Your task to perform on an android device: check google app version Image 0: 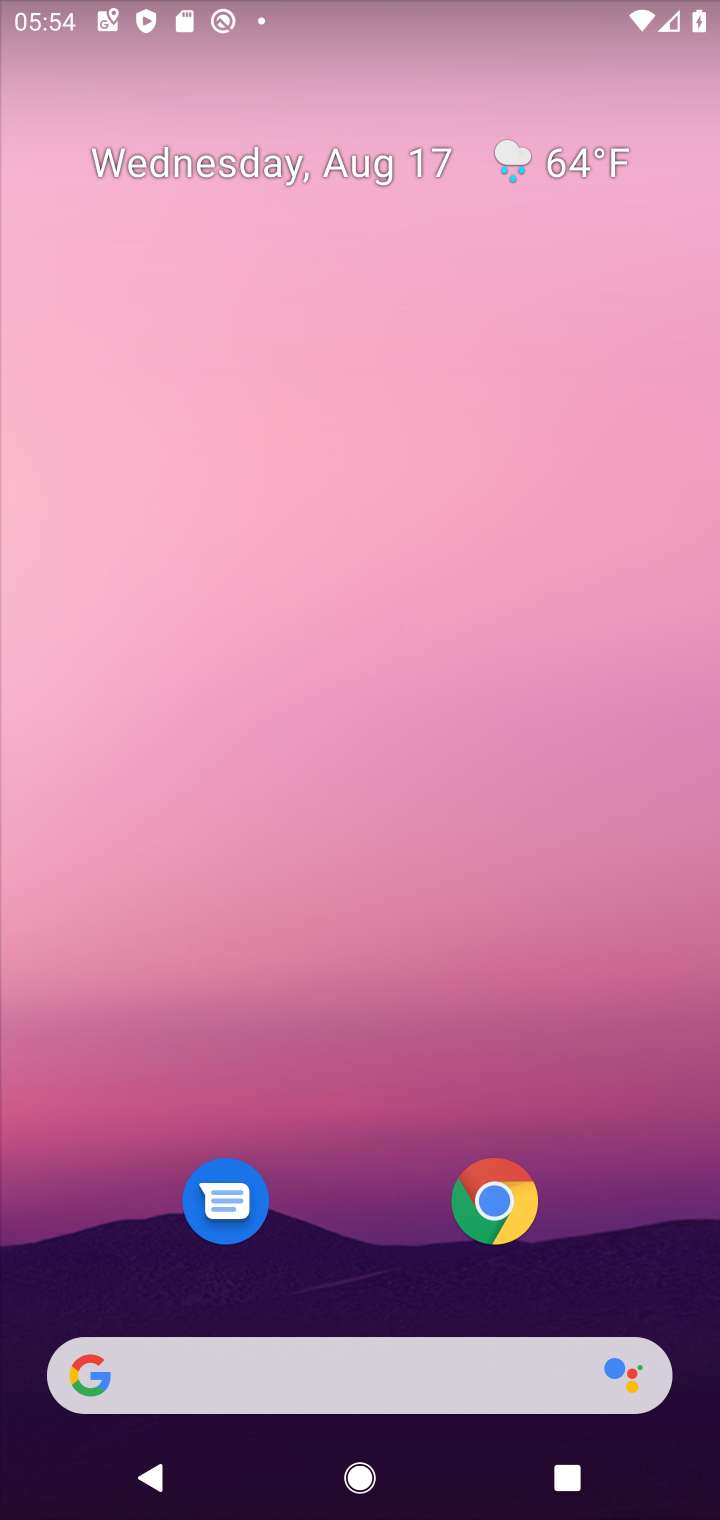
Step 0: press home button
Your task to perform on an android device: check google app version Image 1: 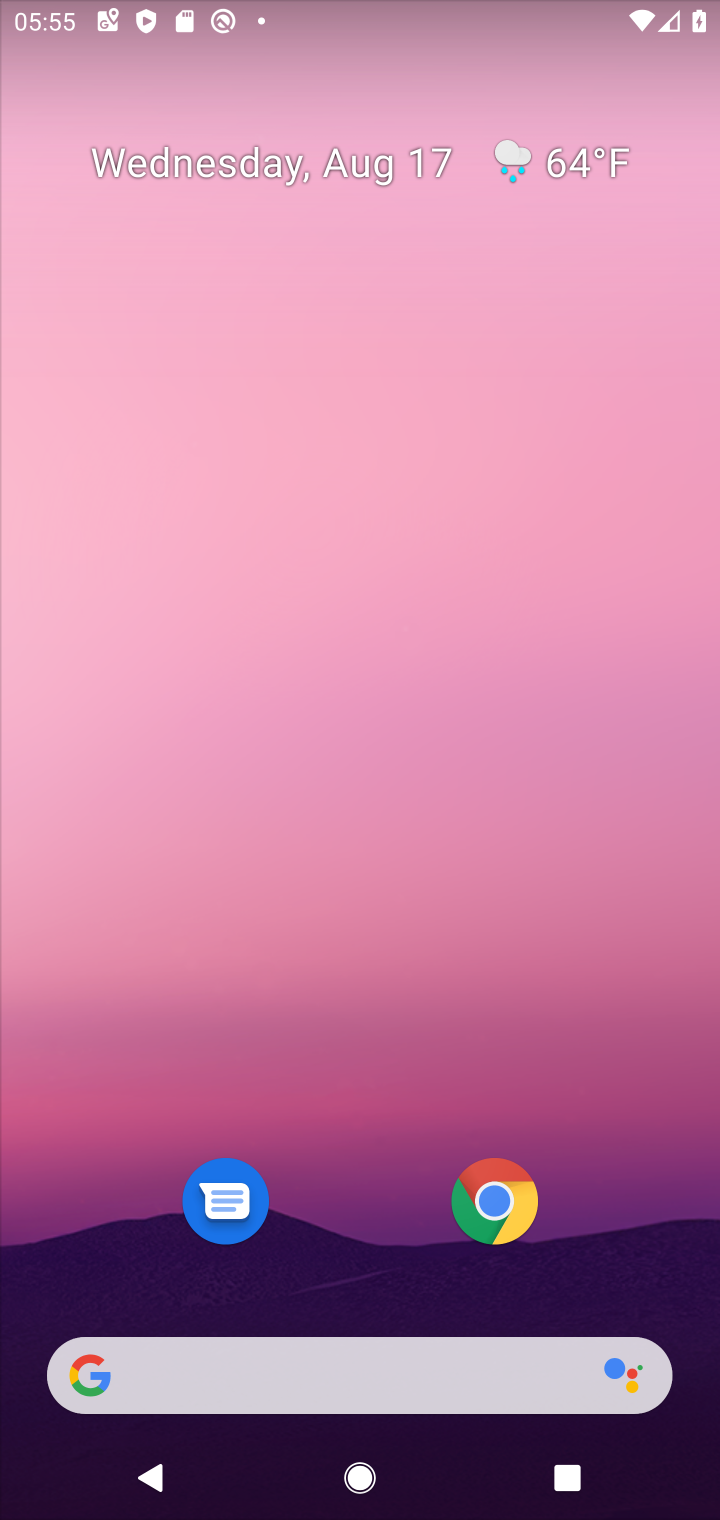
Step 1: drag from (224, 2) to (366, 5)
Your task to perform on an android device: check google app version Image 2: 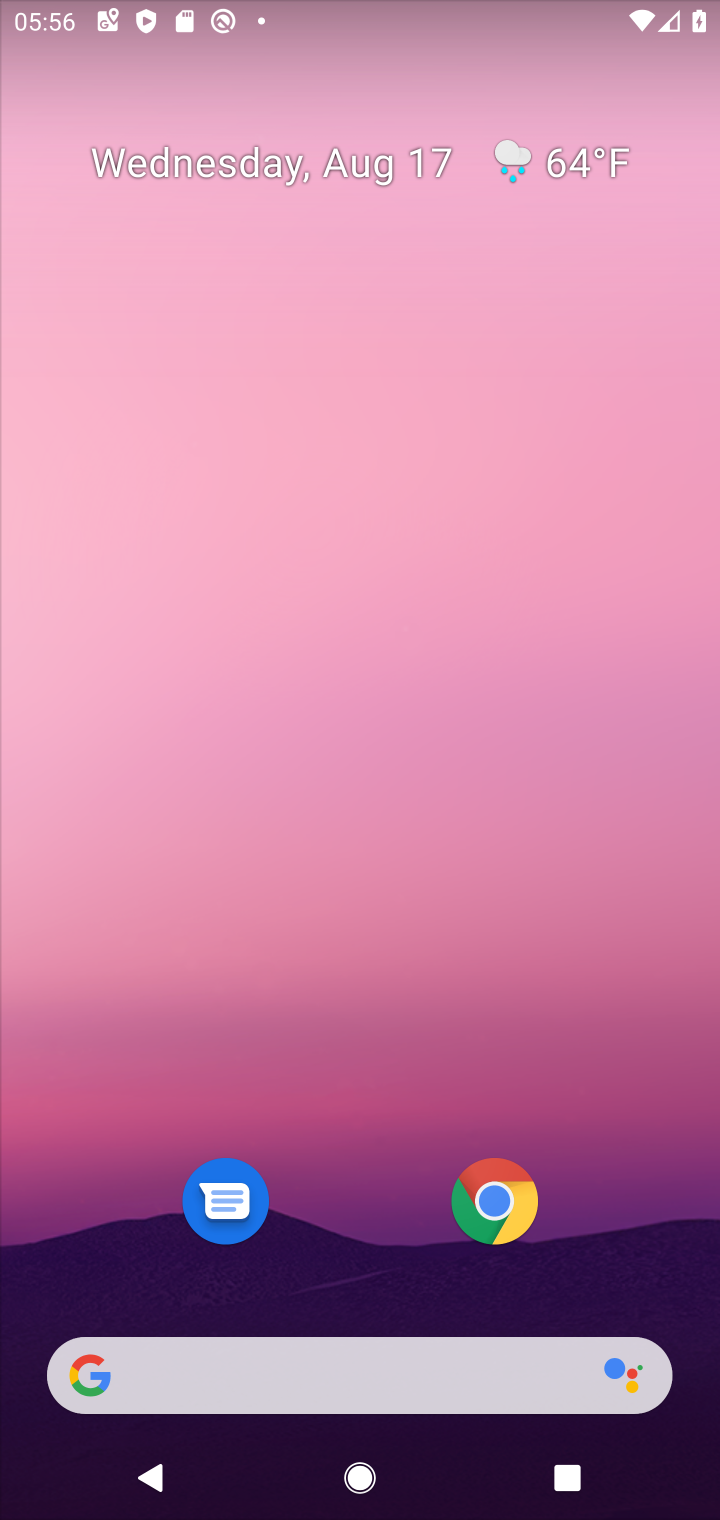
Step 2: drag from (343, 1261) to (462, 90)
Your task to perform on an android device: check google app version Image 3: 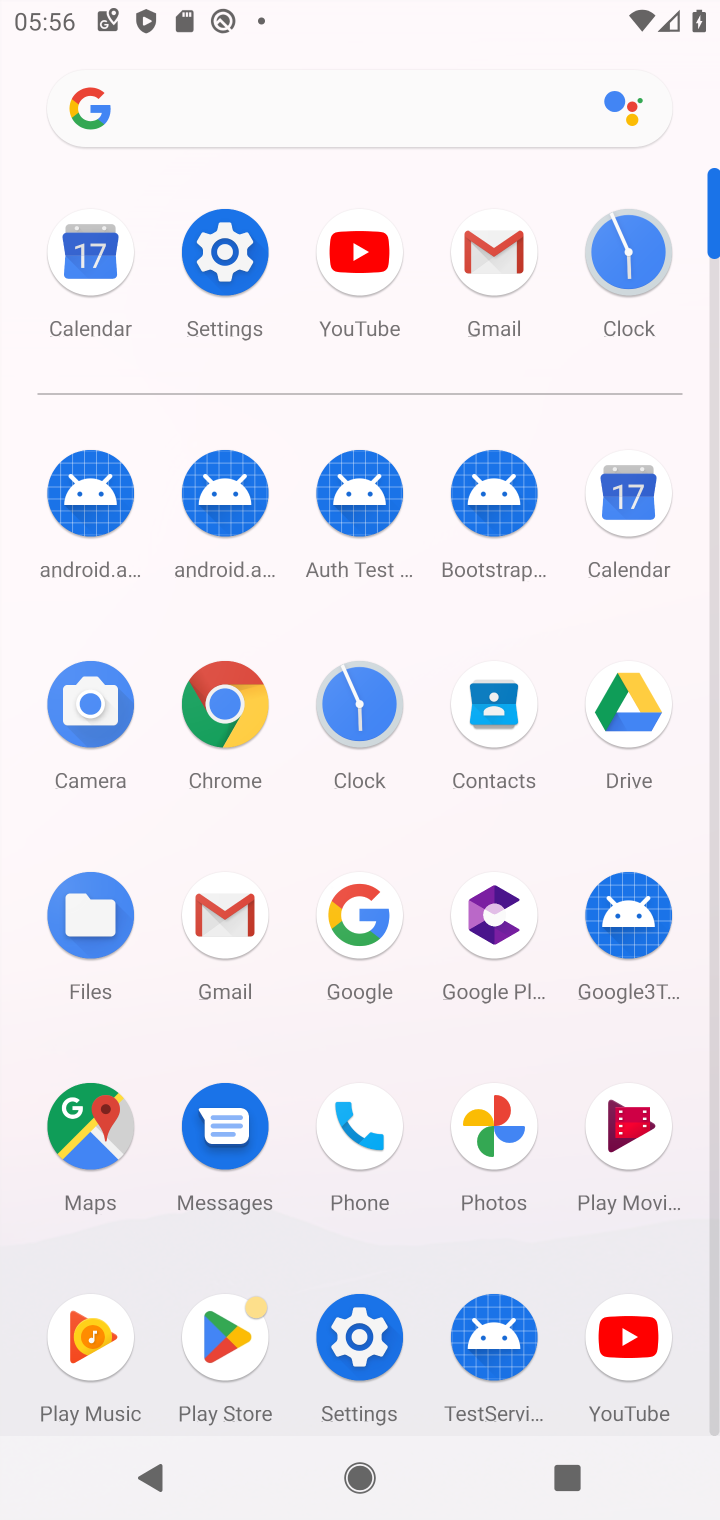
Step 3: click (353, 943)
Your task to perform on an android device: check google app version Image 4: 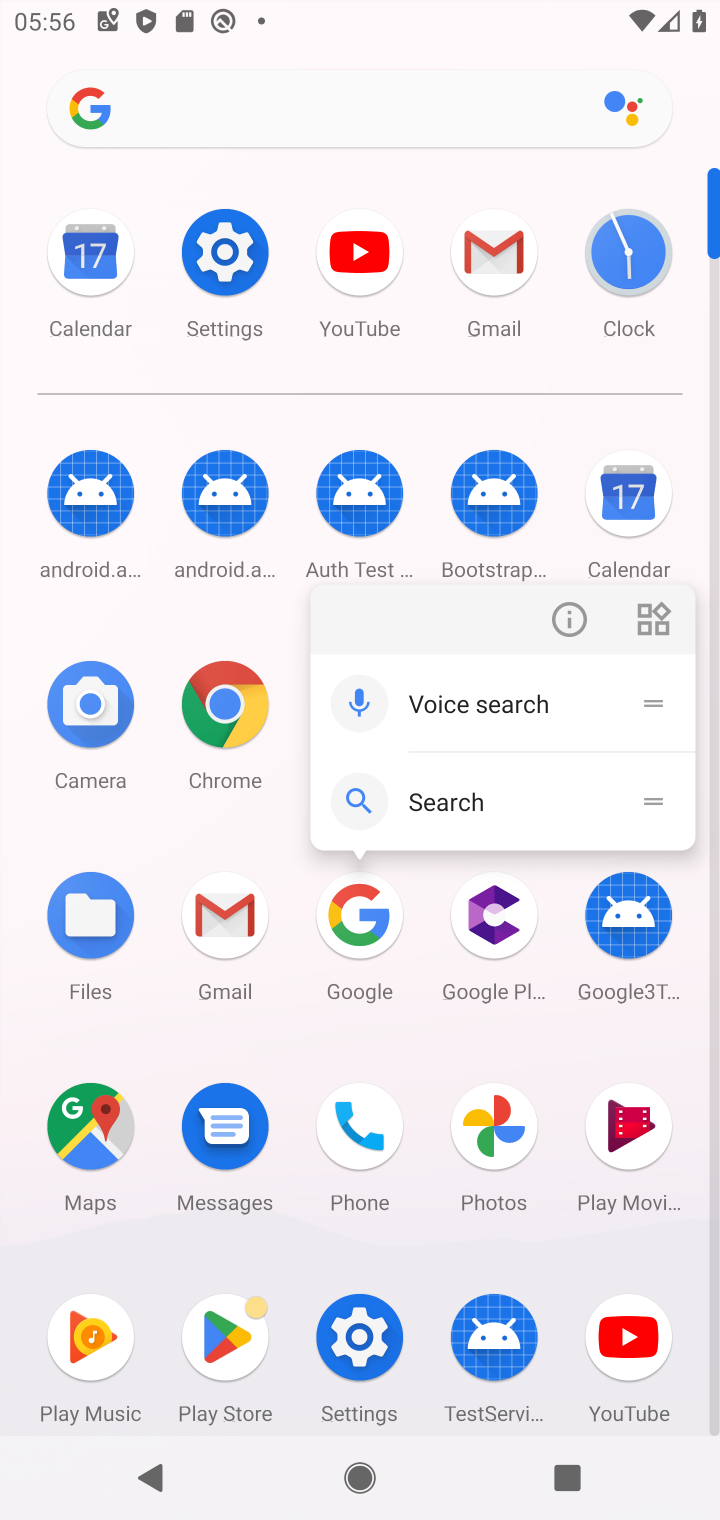
Step 4: click (579, 630)
Your task to perform on an android device: check google app version Image 5: 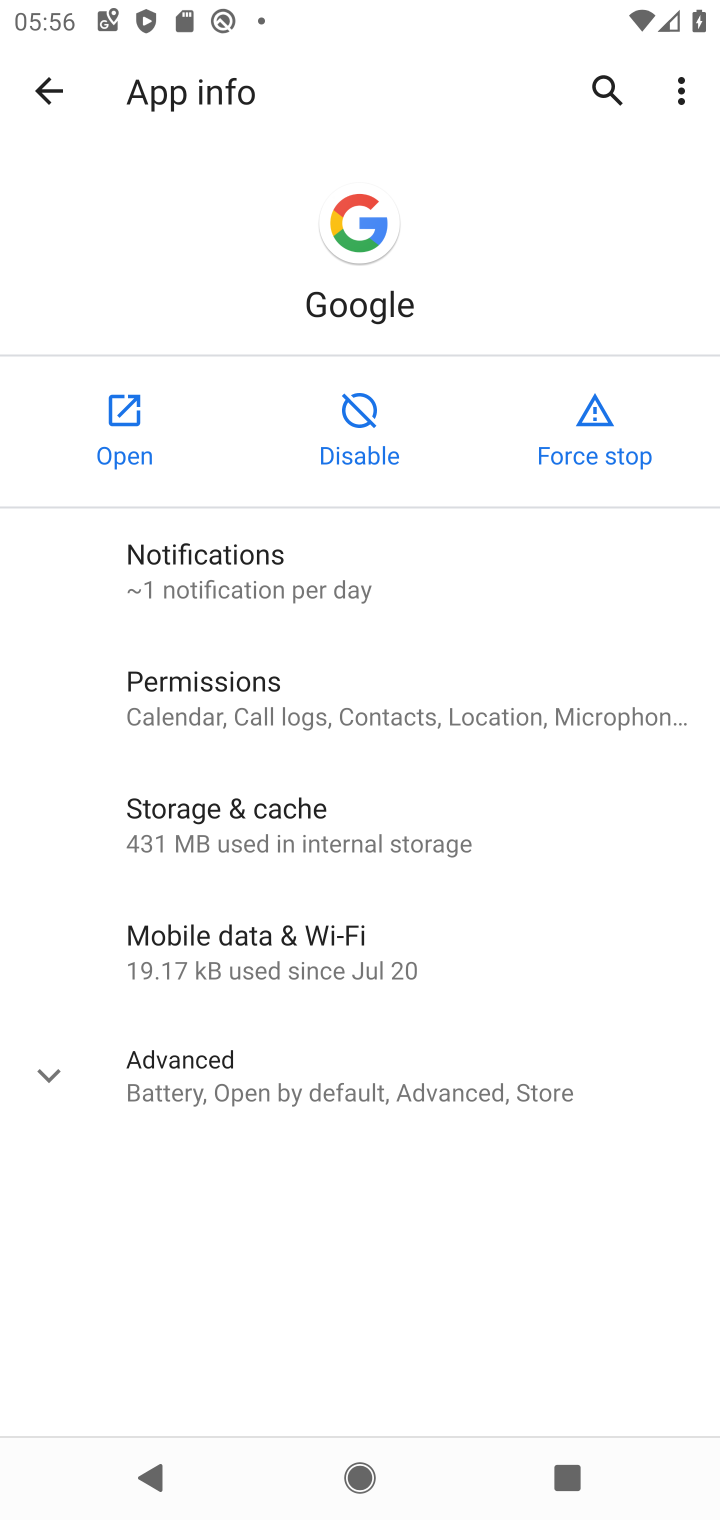
Step 5: click (239, 1079)
Your task to perform on an android device: check google app version Image 6: 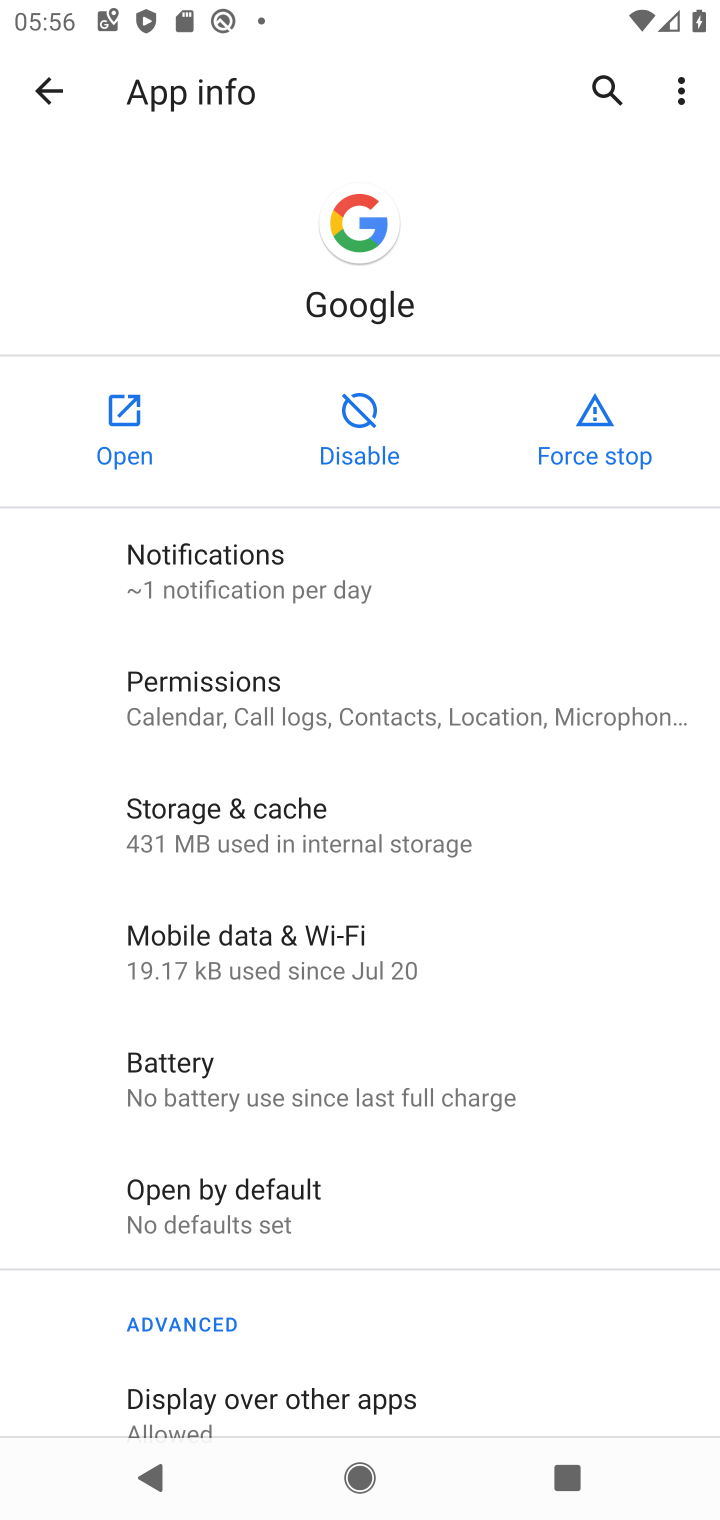
Step 6: task complete